Your task to perform on an android device: What's the weather going to be tomorrow? Image 0: 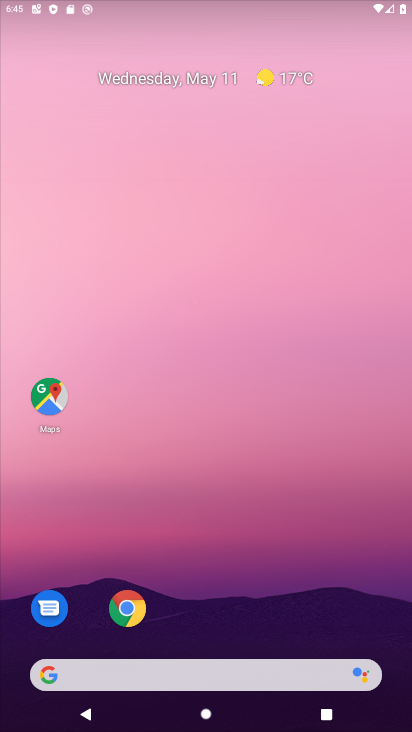
Step 0: drag from (222, 624) to (240, 166)
Your task to perform on an android device: What's the weather going to be tomorrow? Image 1: 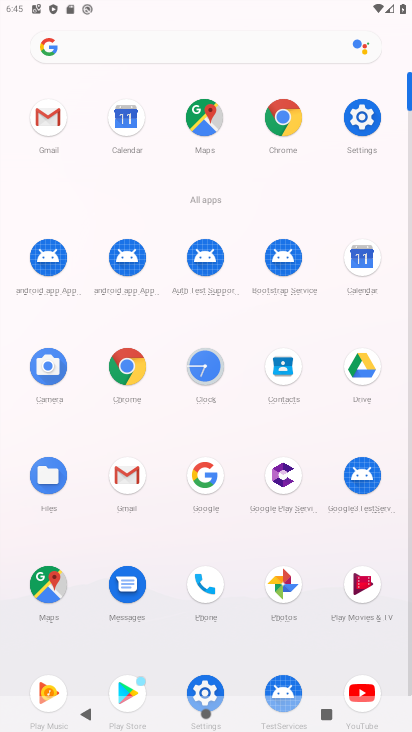
Step 1: click (178, 51)
Your task to perform on an android device: What's the weather going to be tomorrow? Image 2: 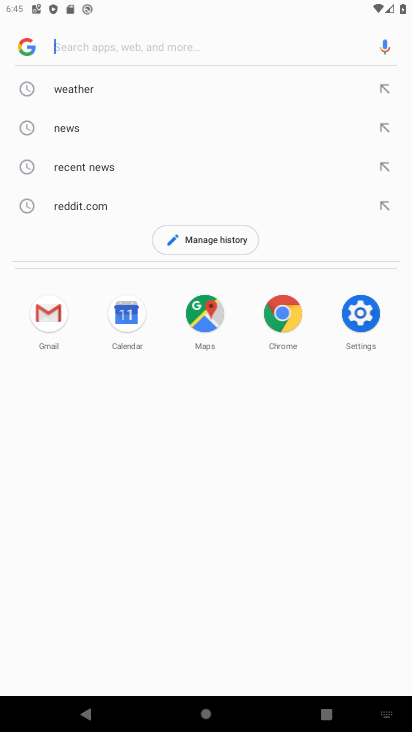
Step 2: click (139, 88)
Your task to perform on an android device: What's the weather going to be tomorrow? Image 3: 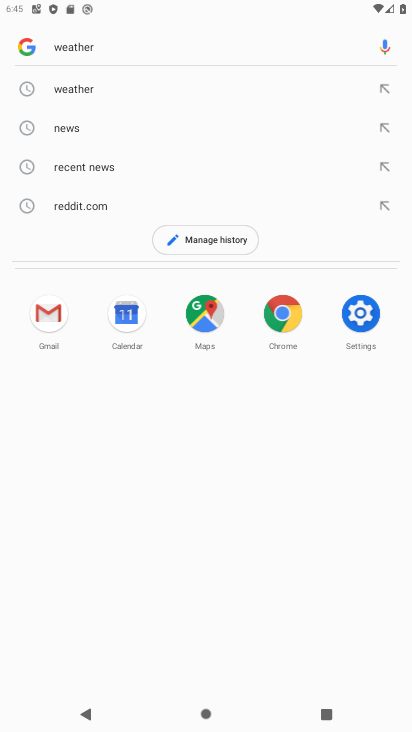
Step 3: task complete